Your task to perform on an android device: turn on airplane mode Image 0: 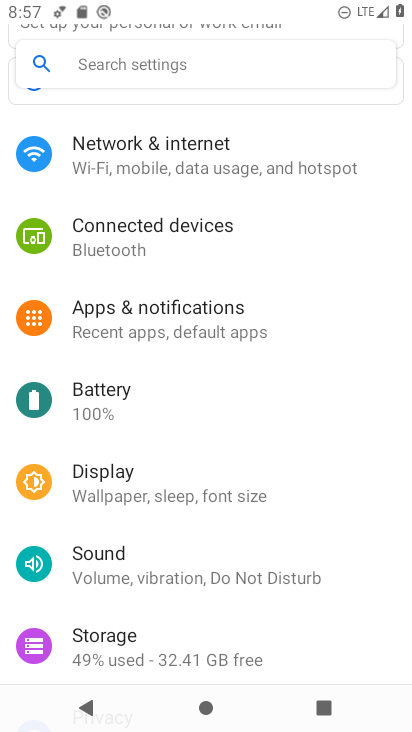
Step 0: press home button
Your task to perform on an android device: turn on airplane mode Image 1: 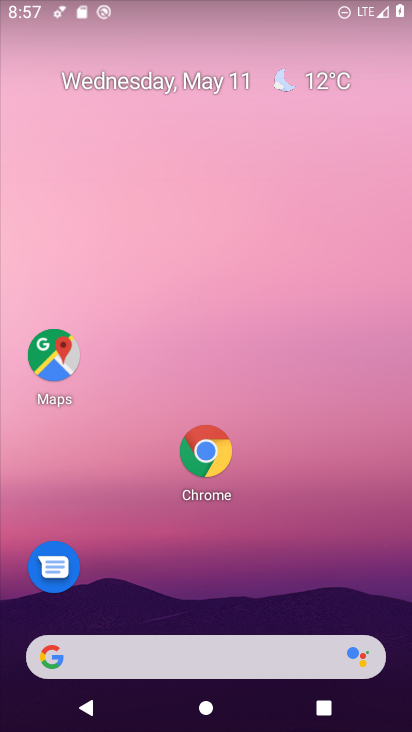
Step 1: drag from (172, 663) to (284, 87)
Your task to perform on an android device: turn on airplane mode Image 2: 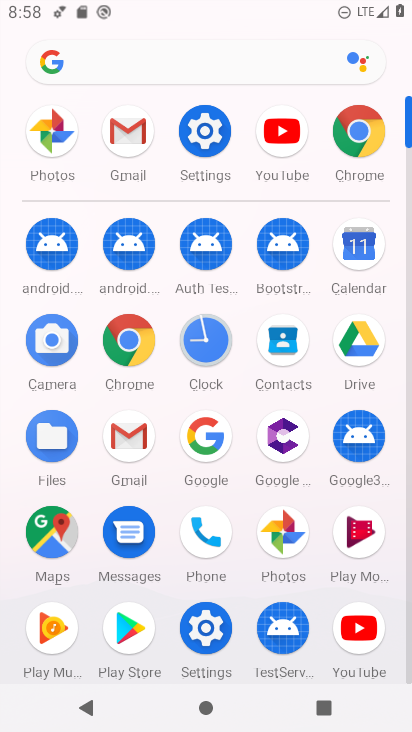
Step 2: click (219, 130)
Your task to perform on an android device: turn on airplane mode Image 3: 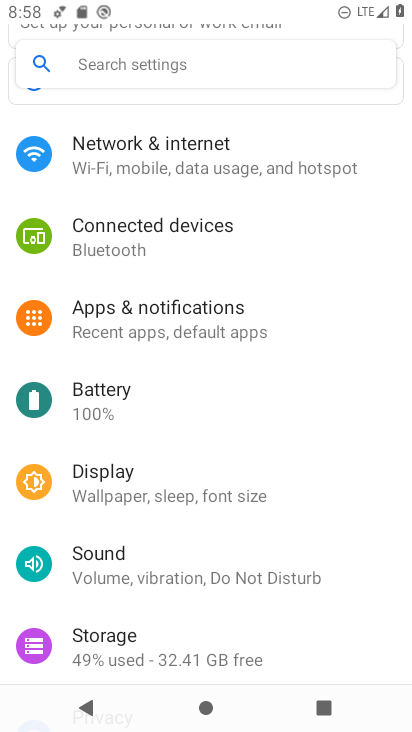
Step 3: click (224, 160)
Your task to perform on an android device: turn on airplane mode Image 4: 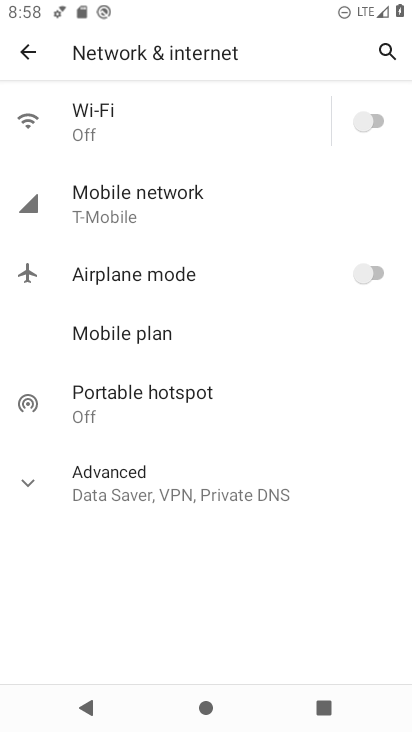
Step 4: click (371, 266)
Your task to perform on an android device: turn on airplane mode Image 5: 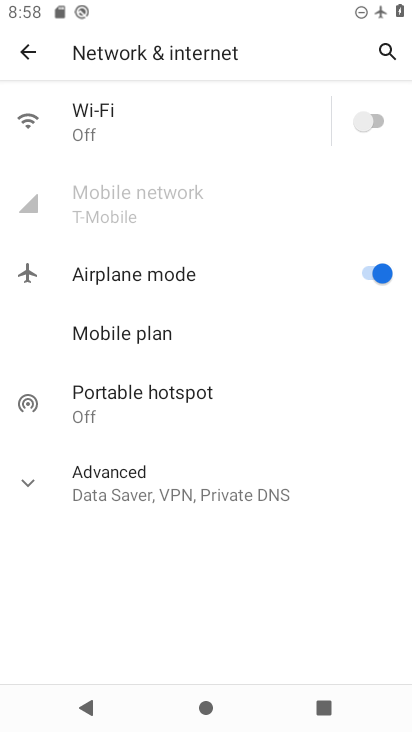
Step 5: task complete